Your task to perform on an android device: turn on airplane mode Image 0: 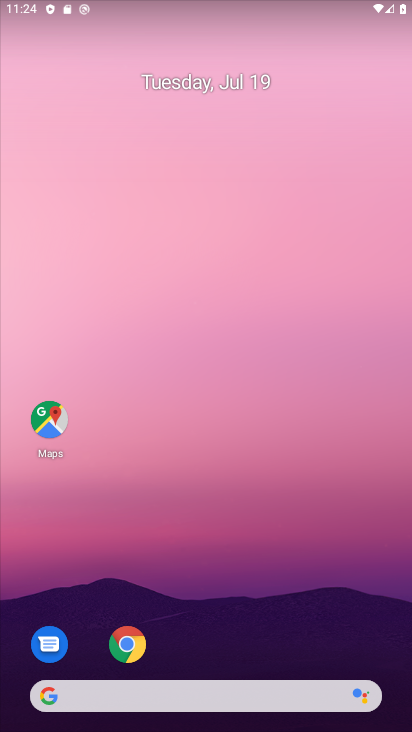
Step 0: drag from (190, 617) to (340, 17)
Your task to perform on an android device: turn on airplane mode Image 1: 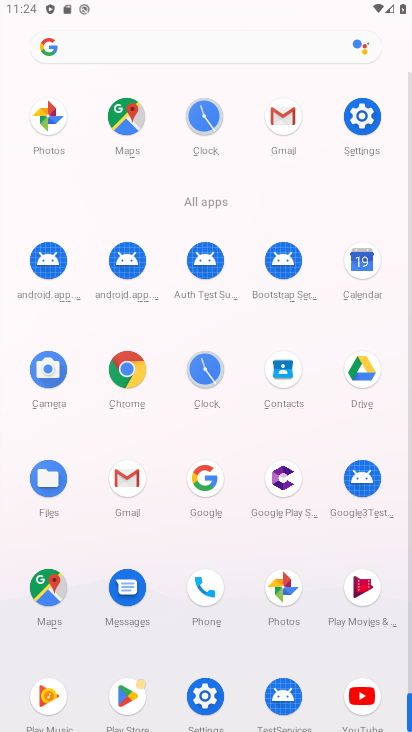
Step 1: click (359, 124)
Your task to perform on an android device: turn on airplane mode Image 2: 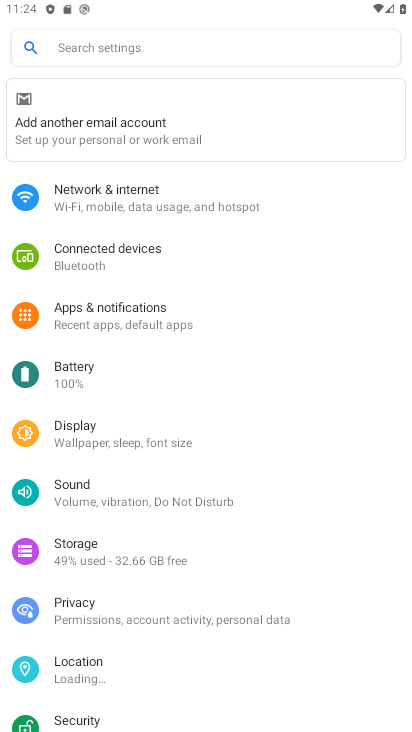
Step 2: drag from (110, 658) to (214, 131)
Your task to perform on an android device: turn on airplane mode Image 3: 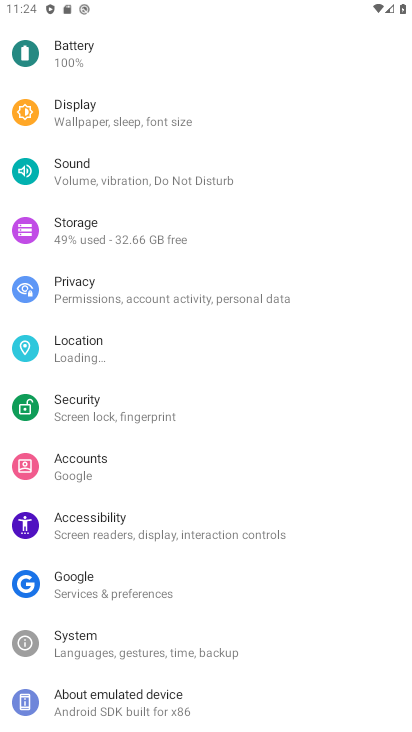
Step 3: drag from (188, 158) to (292, 719)
Your task to perform on an android device: turn on airplane mode Image 4: 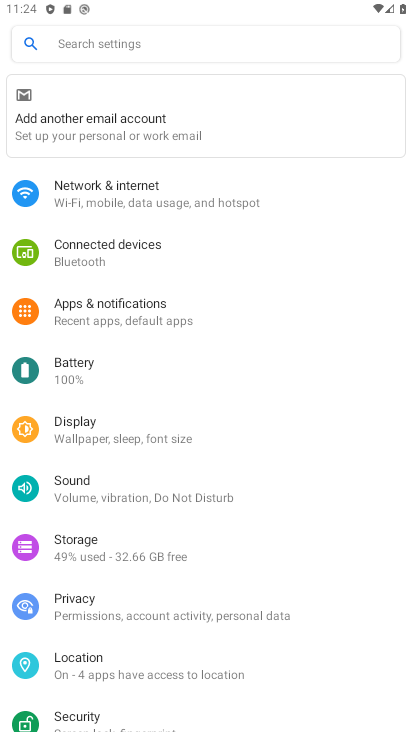
Step 4: click (190, 192)
Your task to perform on an android device: turn on airplane mode Image 5: 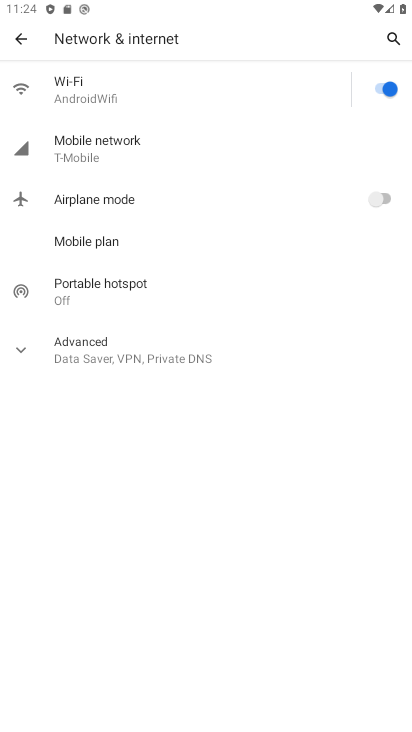
Step 5: drag from (210, 242) to (303, 608)
Your task to perform on an android device: turn on airplane mode Image 6: 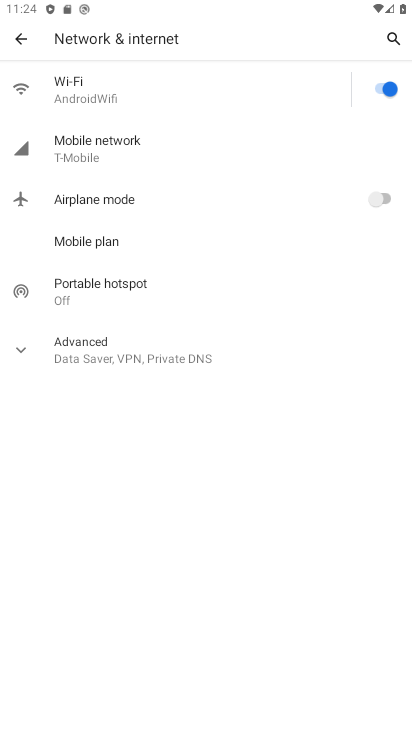
Step 6: click (128, 194)
Your task to perform on an android device: turn on airplane mode Image 7: 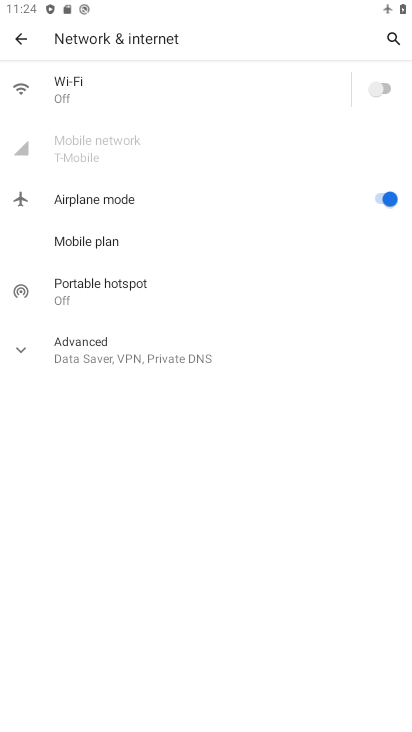
Step 7: task complete